Your task to perform on an android device: change keyboard looks Image 0: 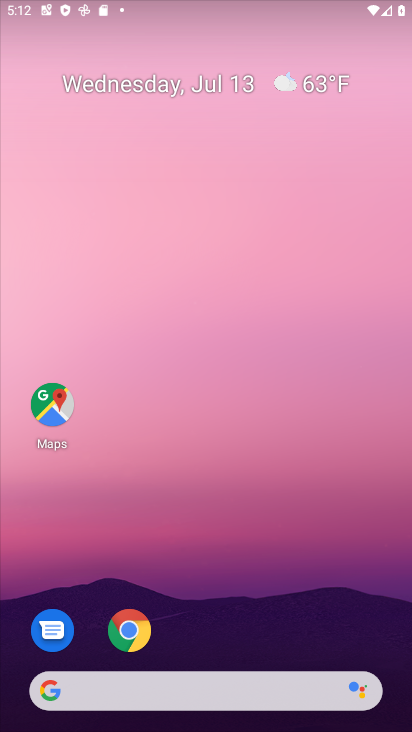
Step 0: press home button
Your task to perform on an android device: change keyboard looks Image 1: 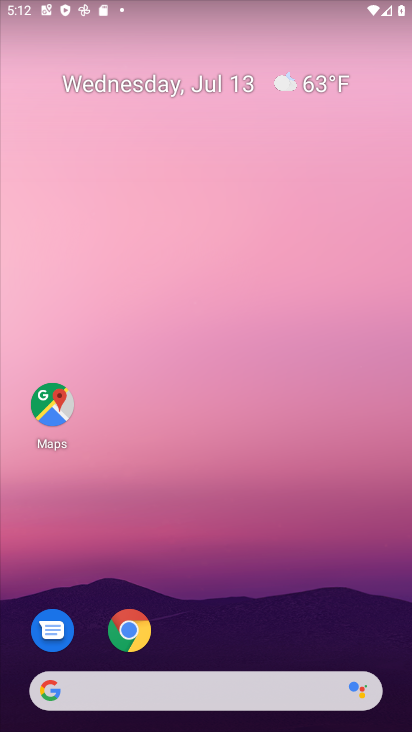
Step 1: drag from (238, 642) to (239, 199)
Your task to perform on an android device: change keyboard looks Image 2: 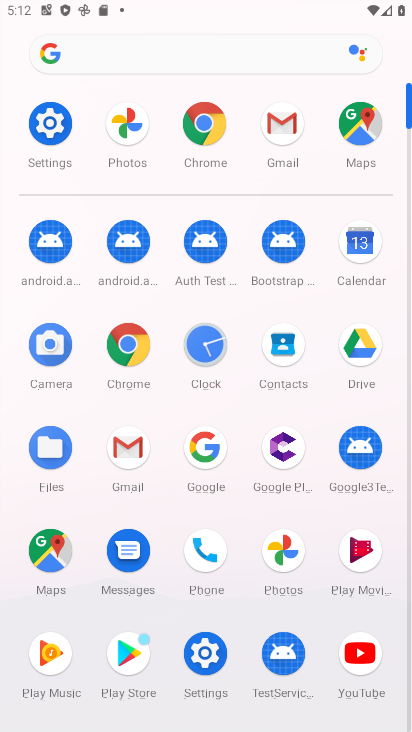
Step 2: click (44, 143)
Your task to perform on an android device: change keyboard looks Image 3: 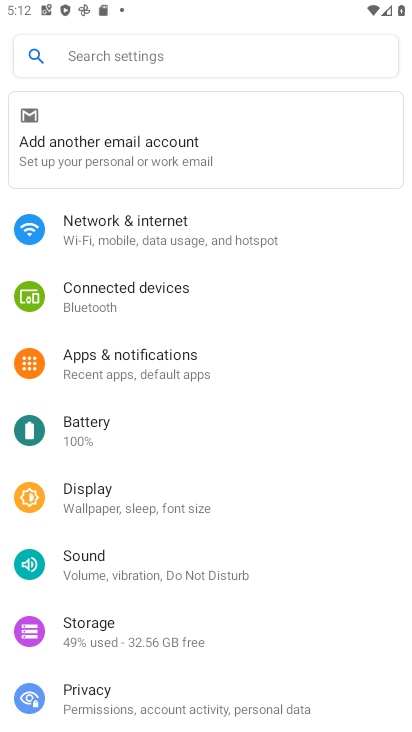
Step 3: drag from (329, 636) to (334, 89)
Your task to perform on an android device: change keyboard looks Image 4: 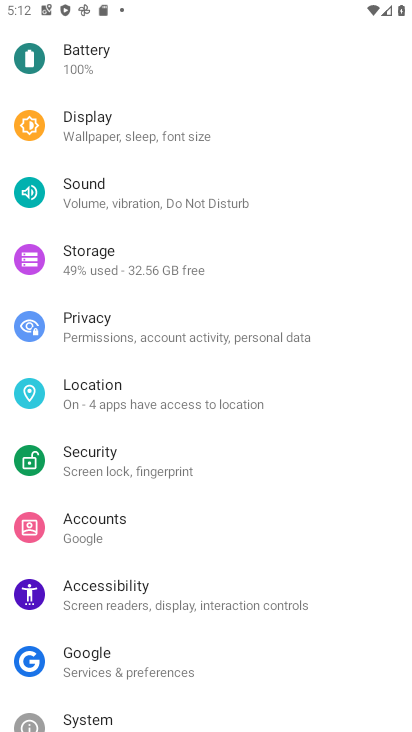
Step 4: drag from (272, 683) to (304, 95)
Your task to perform on an android device: change keyboard looks Image 5: 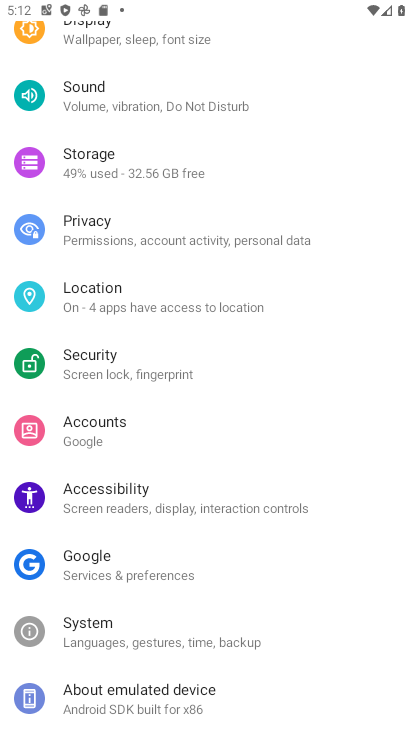
Step 5: click (65, 631)
Your task to perform on an android device: change keyboard looks Image 6: 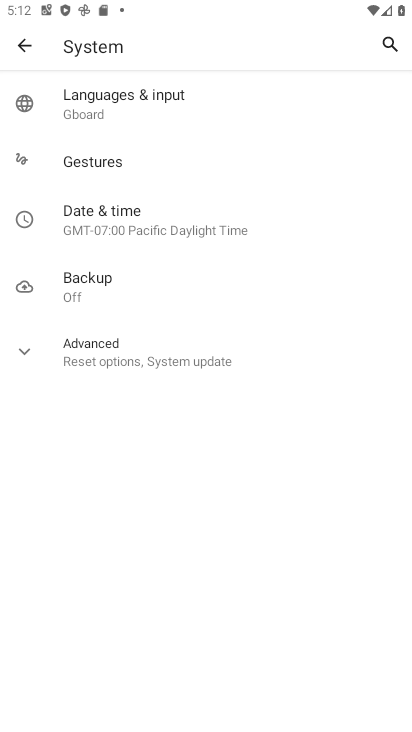
Step 6: click (122, 98)
Your task to perform on an android device: change keyboard looks Image 7: 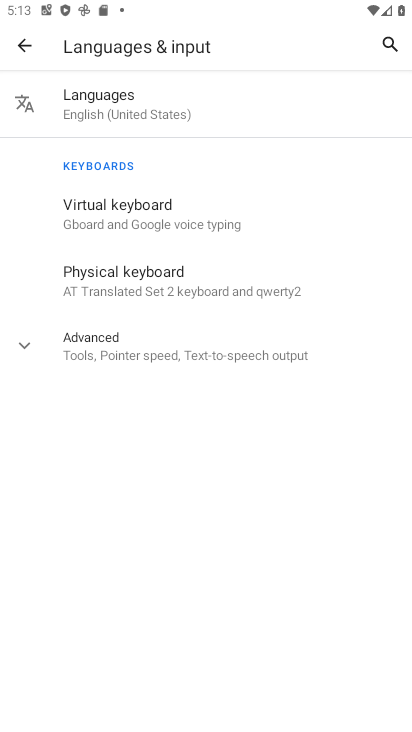
Step 7: click (81, 216)
Your task to perform on an android device: change keyboard looks Image 8: 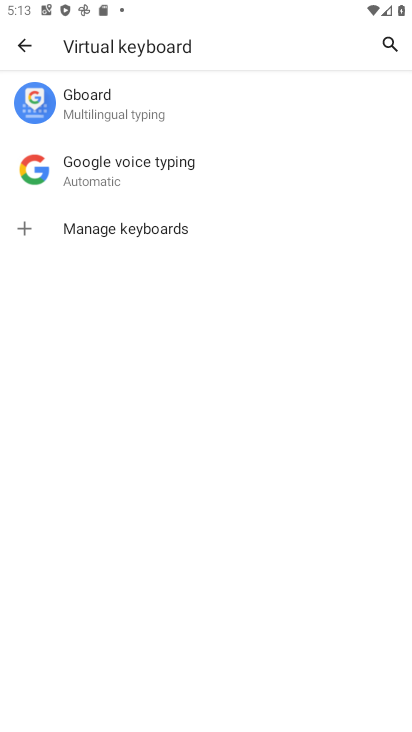
Step 8: click (71, 109)
Your task to perform on an android device: change keyboard looks Image 9: 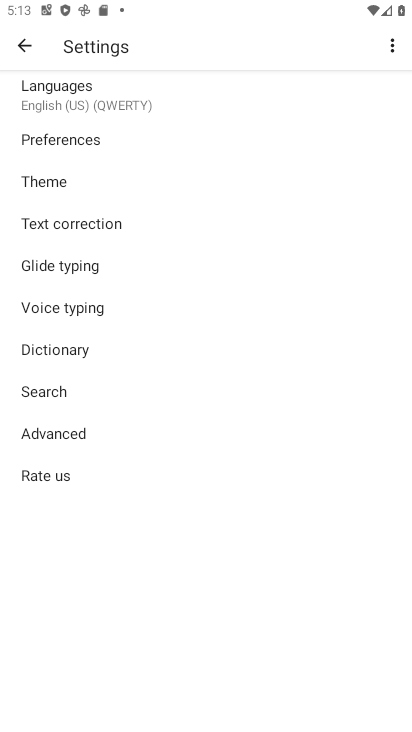
Step 9: click (38, 181)
Your task to perform on an android device: change keyboard looks Image 10: 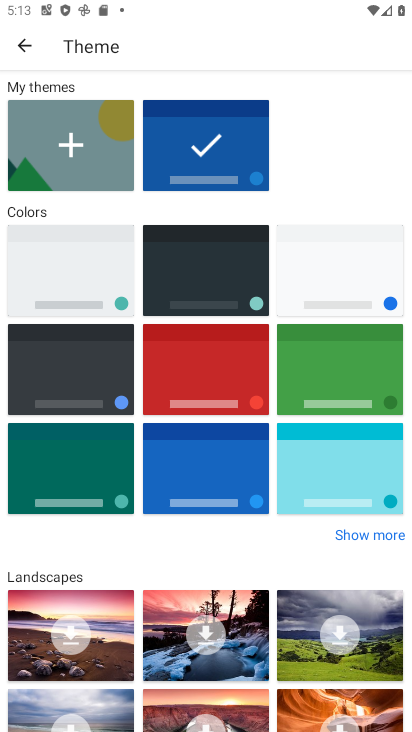
Step 10: click (179, 488)
Your task to perform on an android device: change keyboard looks Image 11: 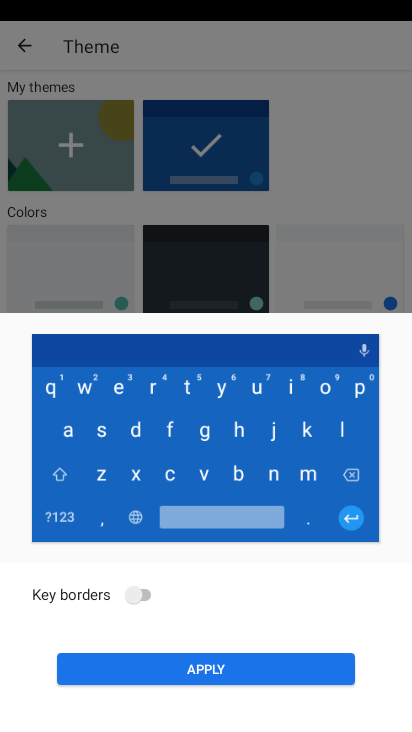
Step 11: click (150, 674)
Your task to perform on an android device: change keyboard looks Image 12: 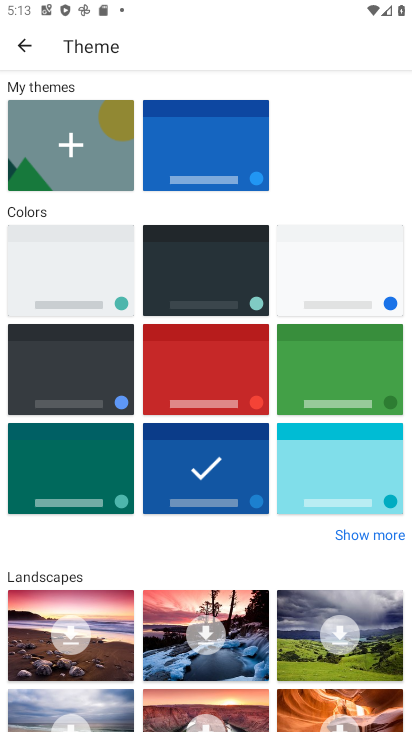
Step 12: task complete